Your task to perform on an android device: toggle notifications settings in the gmail app Image 0: 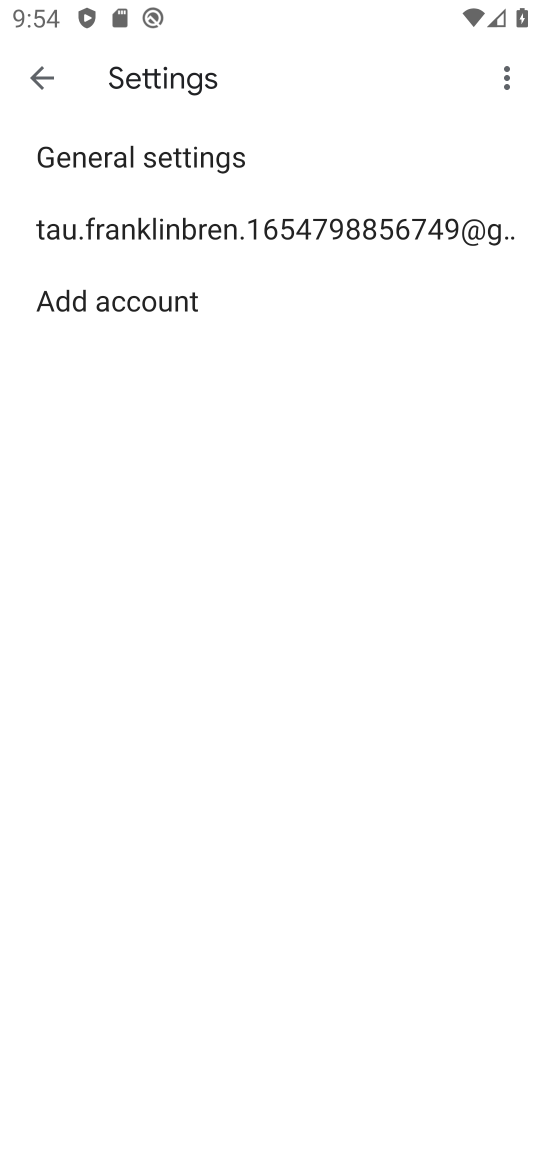
Step 0: click (405, 232)
Your task to perform on an android device: toggle notifications settings in the gmail app Image 1: 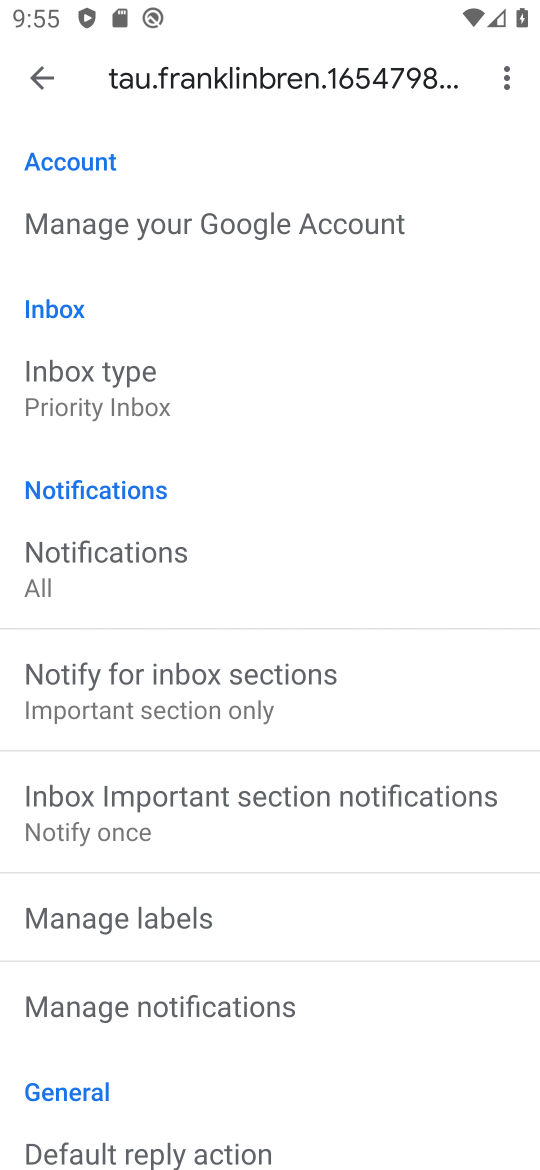
Step 1: click (58, 1014)
Your task to perform on an android device: toggle notifications settings in the gmail app Image 2: 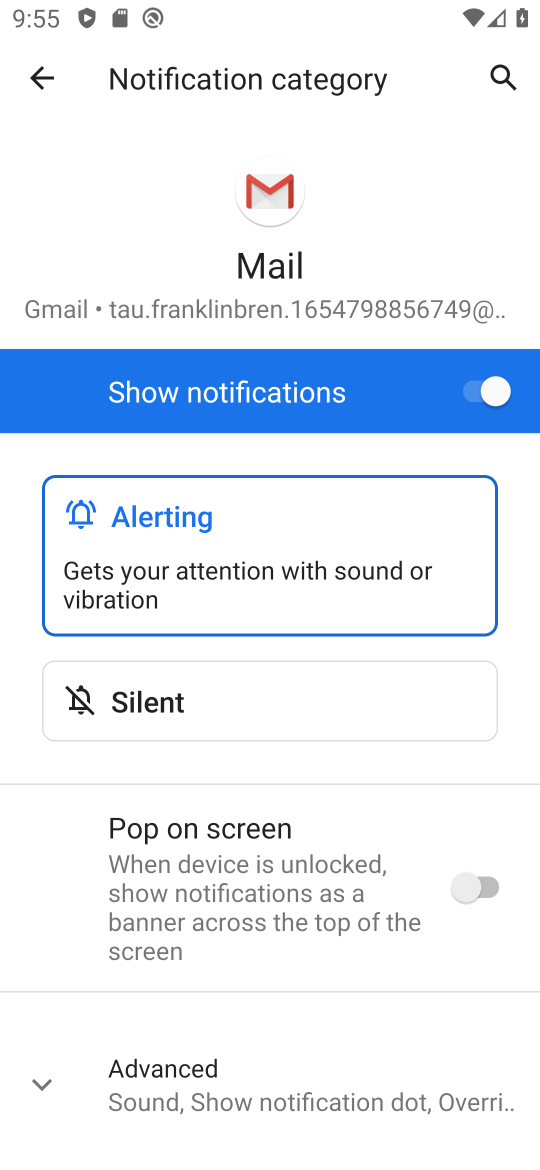
Step 2: click (478, 387)
Your task to perform on an android device: toggle notifications settings in the gmail app Image 3: 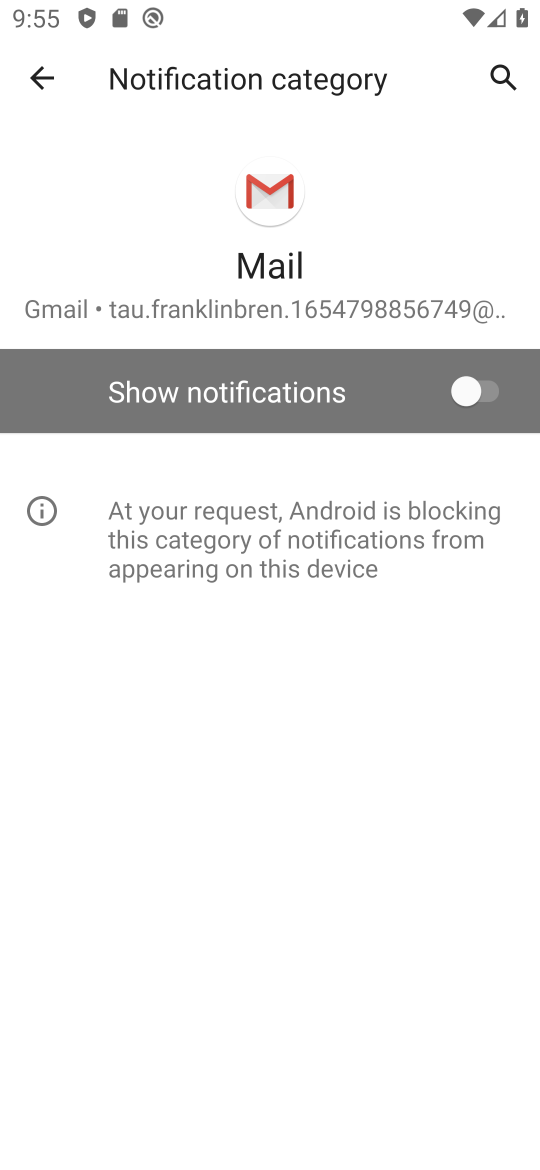
Step 3: task complete